Your task to perform on an android device: check battery use Image 0: 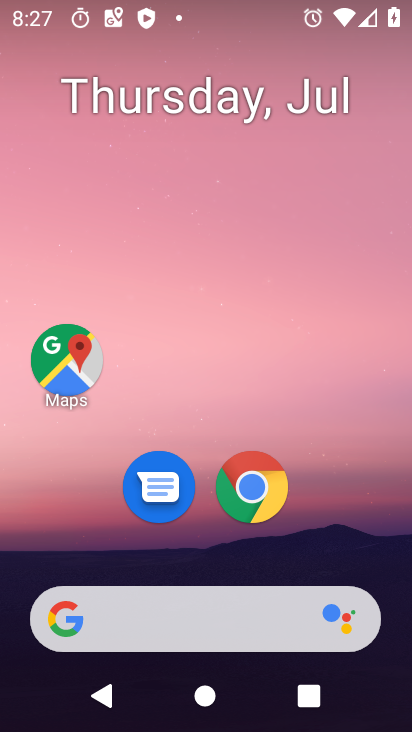
Step 0: drag from (229, 565) to (241, 144)
Your task to perform on an android device: check battery use Image 1: 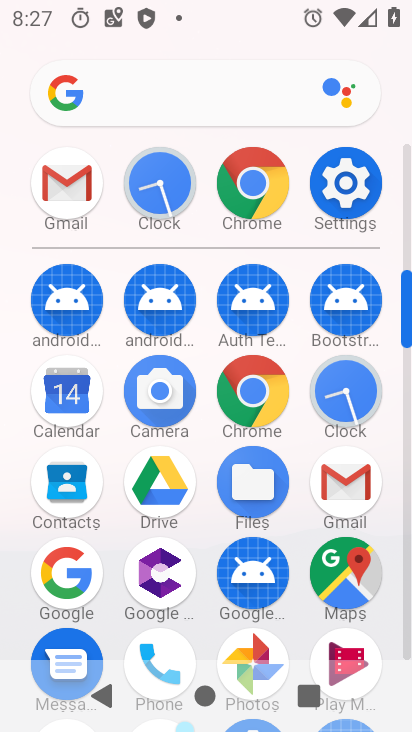
Step 1: click (359, 195)
Your task to perform on an android device: check battery use Image 2: 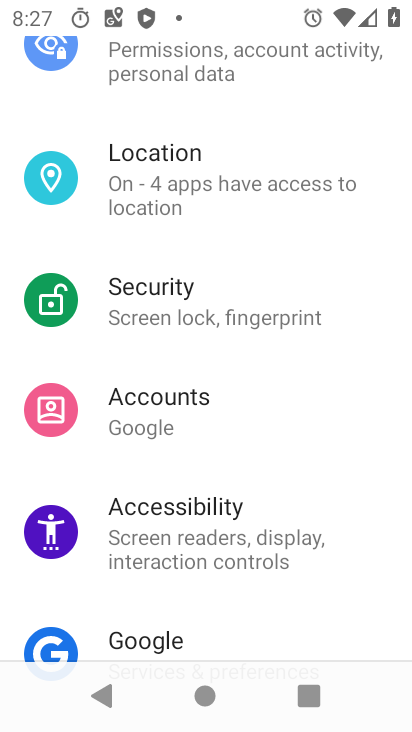
Step 2: drag from (231, 525) to (162, 712)
Your task to perform on an android device: check battery use Image 3: 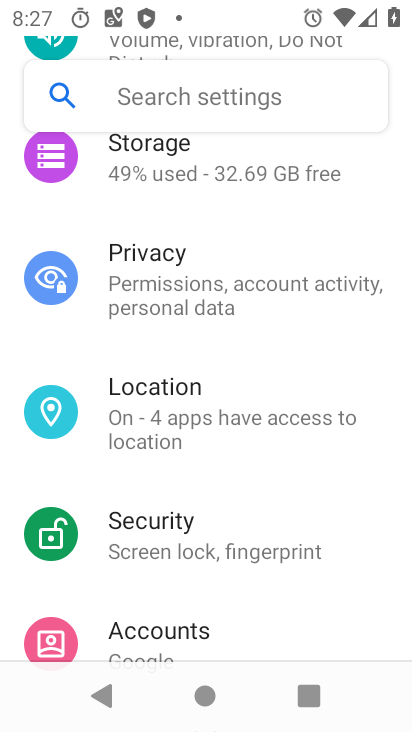
Step 3: drag from (243, 373) to (176, 713)
Your task to perform on an android device: check battery use Image 4: 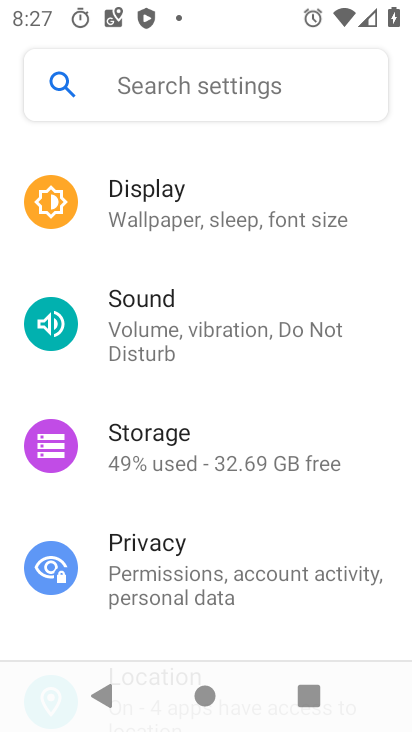
Step 4: drag from (235, 336) to (228, 519)
Your task to perform on an android device: check battery use Image 5: 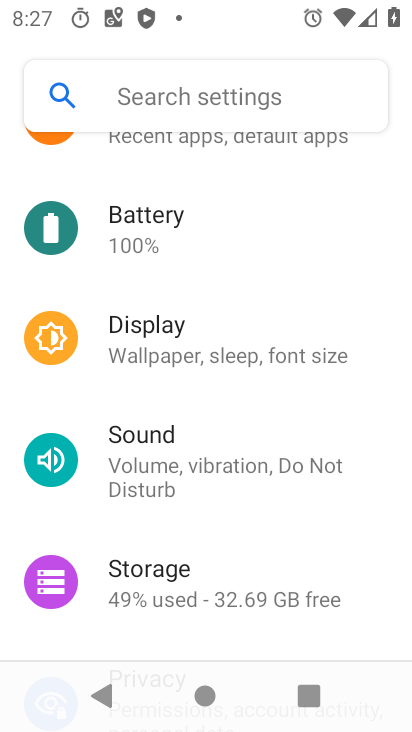
Step 5: click (199, 230)
Your task to perform on an android device: check battery use Image 6: 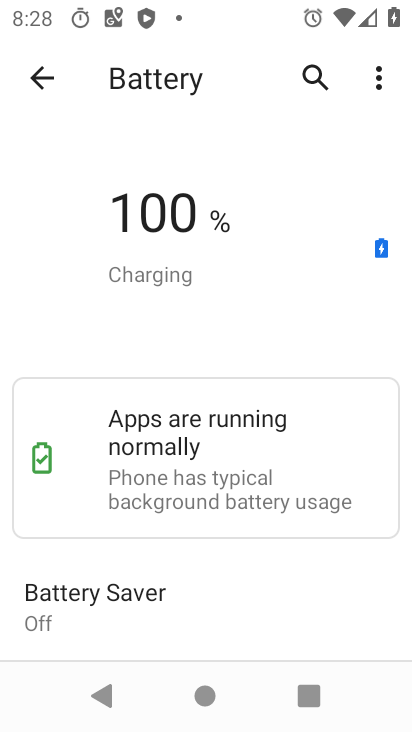
Step 6: task complete